Your task to perform on an android device: check android version Image 0: 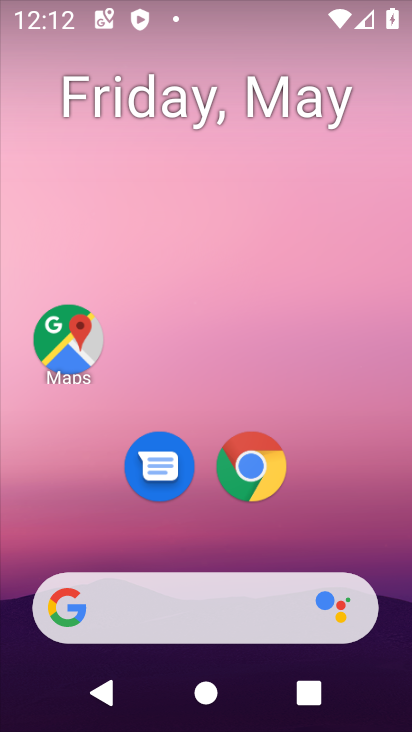
Step 0: drag from (385, 632) to (273, 81)
Your task to perform on an android device: check android version Image 1: 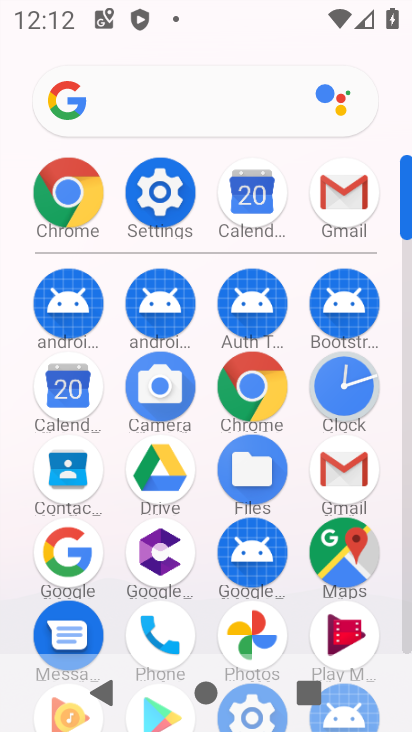
Step 1: click (177, 196)
Your task to perform on an android device: check android version Image 2: 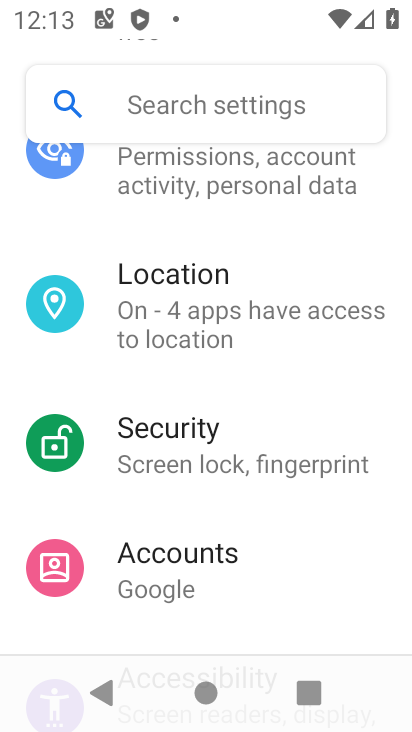
Step 2: drag from (238, 575) to (232, 23)
Your task to perform on an android device: check android version Image 3: 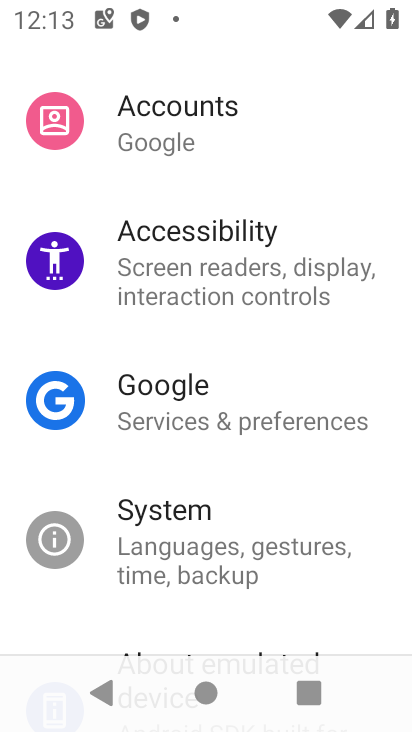
Step 3: drag from (189, 555) to (274, 63)
Your task to perform on an android device: check android version Image 4: 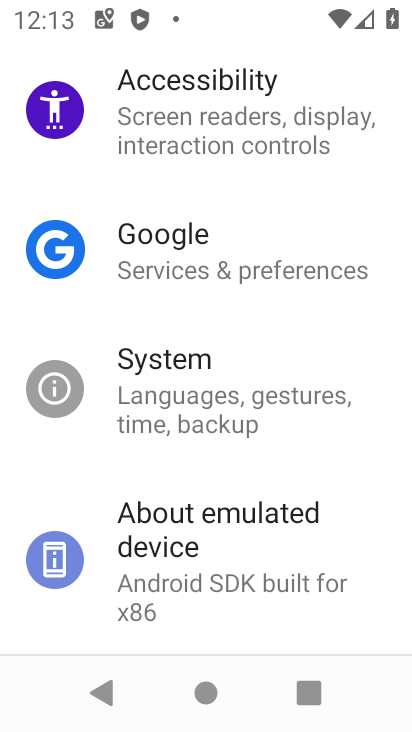
Step 4: click (199, 541)
Your task to perform on an android device: check android version Image 5: 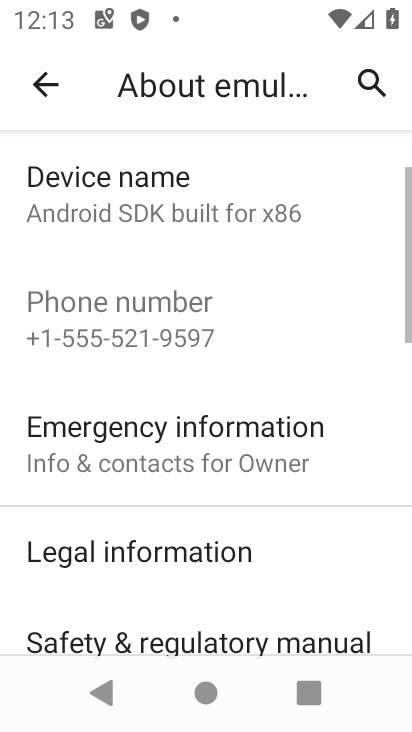
Step 5: drag from (136, 575) to (224, 82)
Your task to perform on an android device: check android version Image 6: 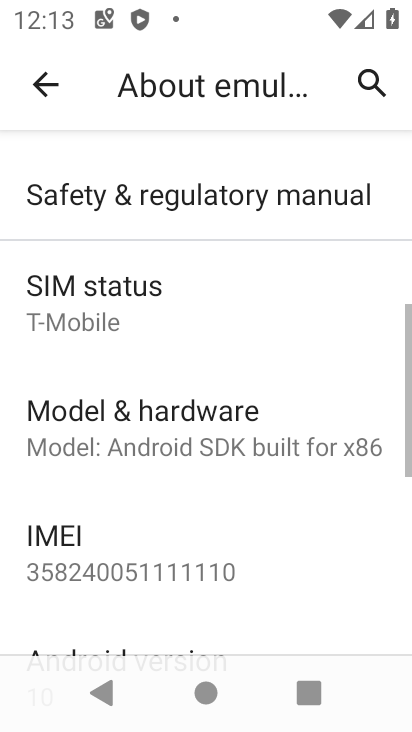
Step 6: drag from (160, 562) to (240, 175)
Your task to perform on an android device: check android version Image 7: 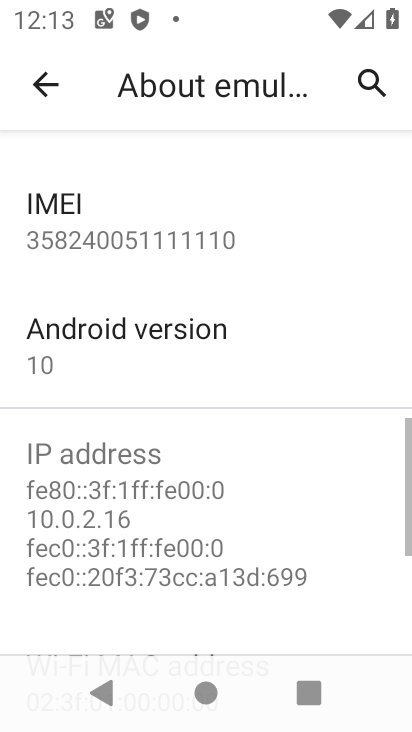
Step 7: click (161, 343)
Your task to perform on an android device: check android version Image 8: 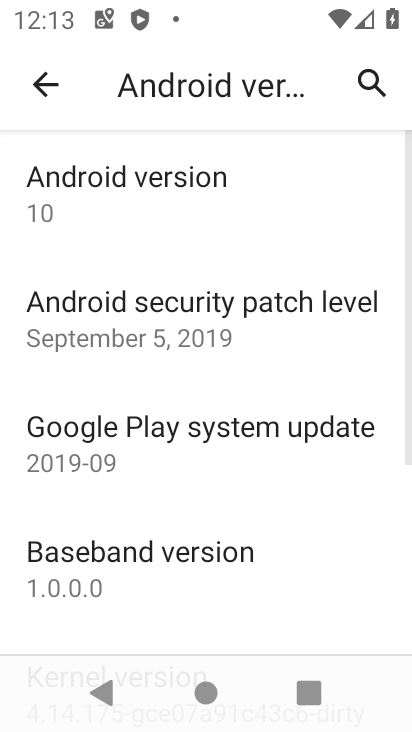
Step 8: task complete